Your task to perform on an android device: Go to Maps Image 0: 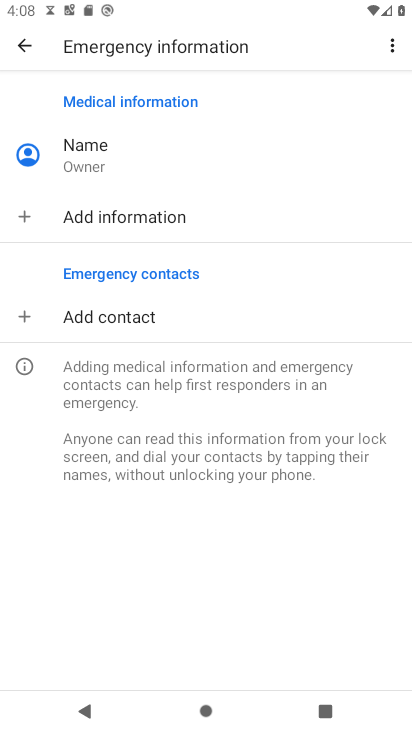
Step 0: press home button
Your task to perform on an android device: Go to Maps Image 1: 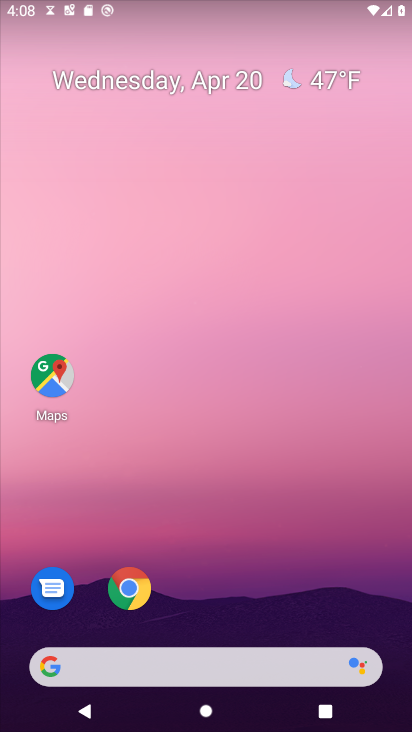
Step 1: drag from (259, 618) to (283, 54)
Your task to perform on an android device: Go to Maps Image 2: 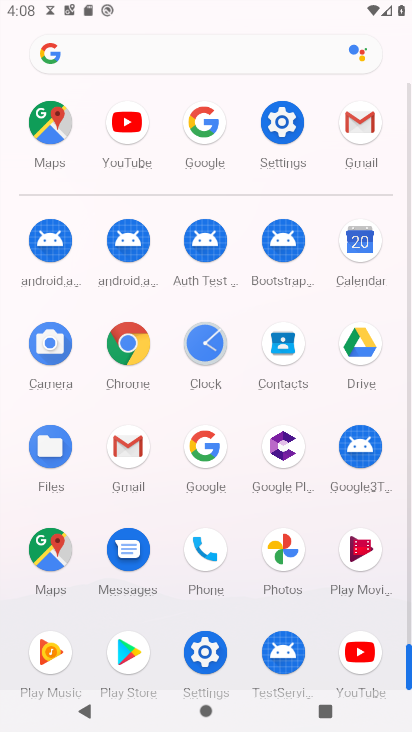
Step 2: click (47, 553)
Your task to perform on an android device: Go to Maps Image 3: 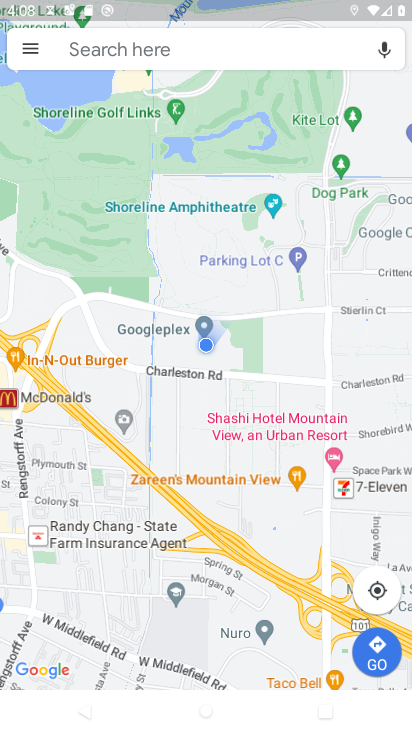
Step 3: task complete